Your task to perform on an android device: Play the last video I watched on Youtube Image 0: 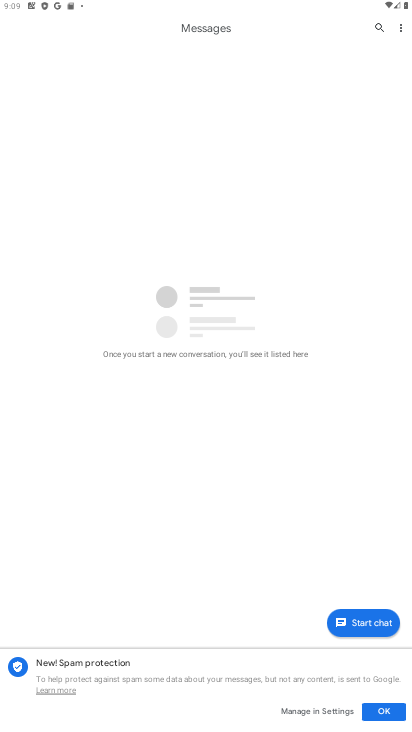
Step 0: press home button
Your task to perform on an android device: Play the last video I watched on Youtube Image 1: 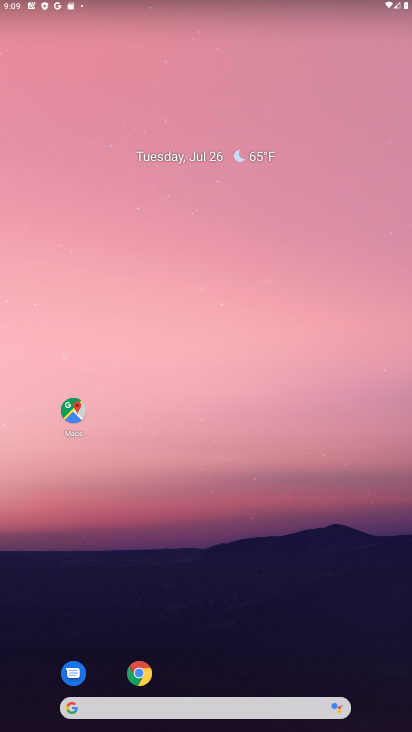
Step 1: drag from (372, 686) to (328, 261)
Your task to perform on an android device: Play the last video I watched on Youtube Image 2: 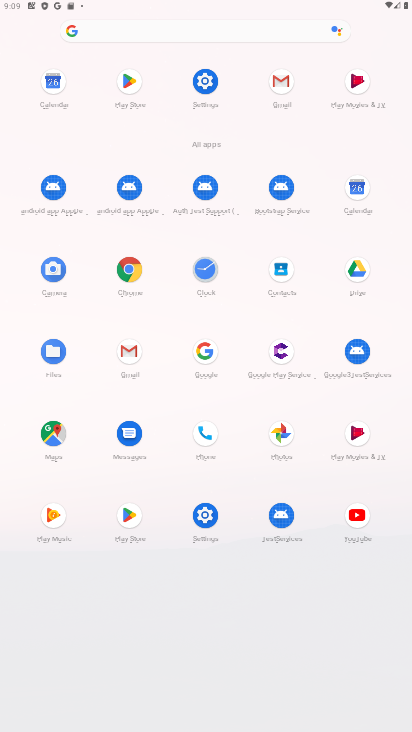
Step 2: click (357, 513)
Your task to perform on an android device: Play the last video I watched on Youtube Image 3: 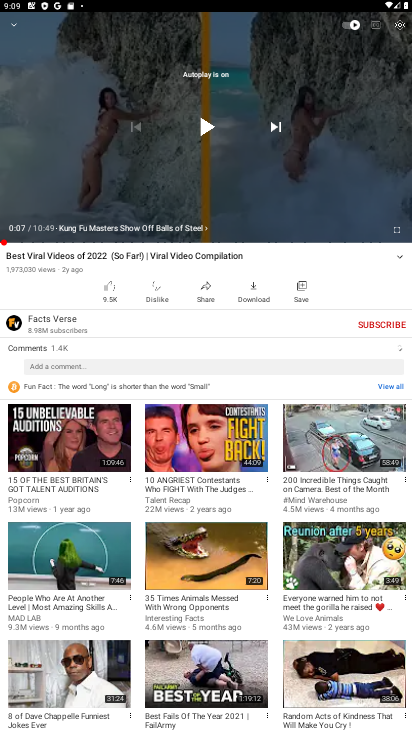
Step 3: press back button
Your task to perform on an android device: Play the last video I watched on Youtube Image 4: 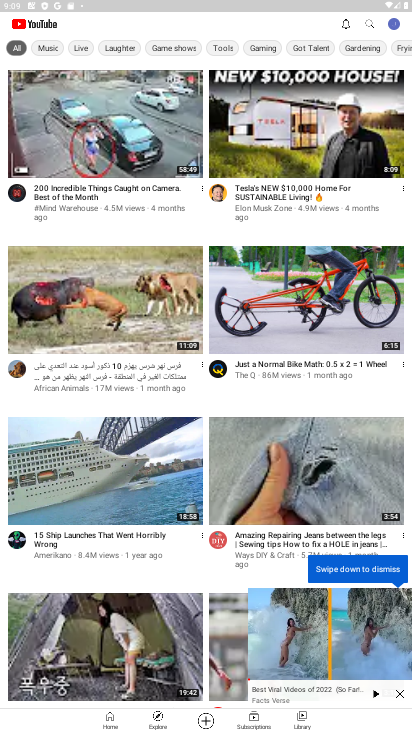
Step 4: click (302, 720)
Your task to perform on an android device: Play the last video I watched on Youtube Image 5: 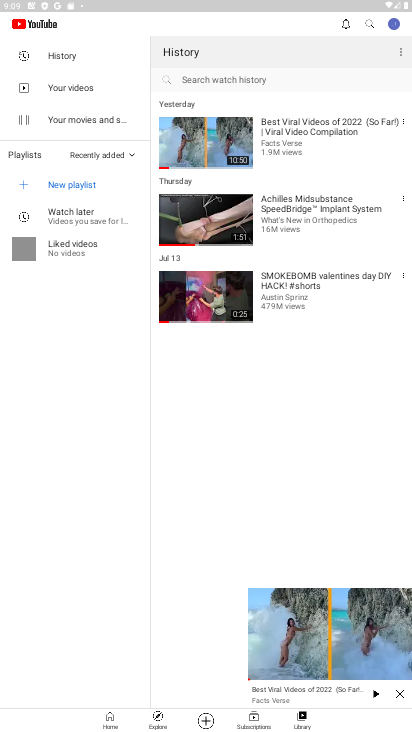
Step 5: click (209, 132)
Your task to perform on an android device: Play the last video I watched on Youtube Image 6: 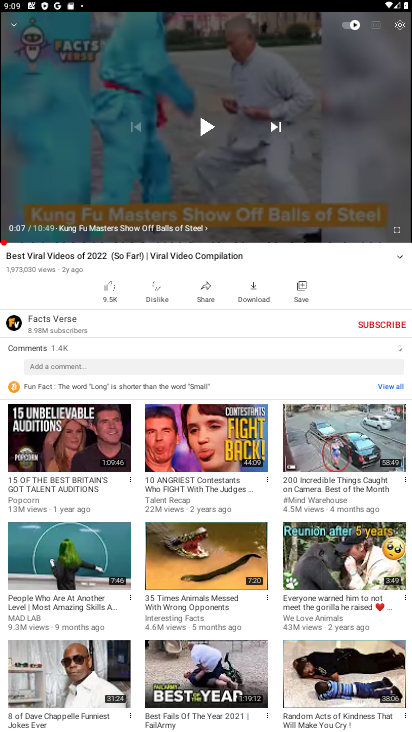
Step 6: click (204, 125)
Your task to perform on an android device: Play the last video I watched on Youtube Image 7: 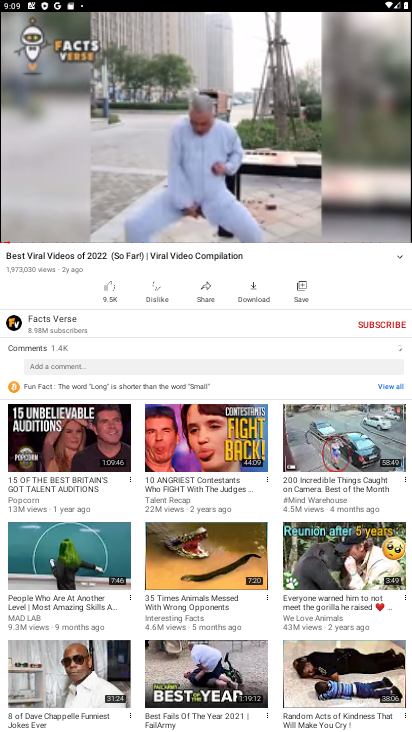
Step 7: click (198, 123)
Your task to perform on an android device: Play the last video I watched on Youtube Image 8: 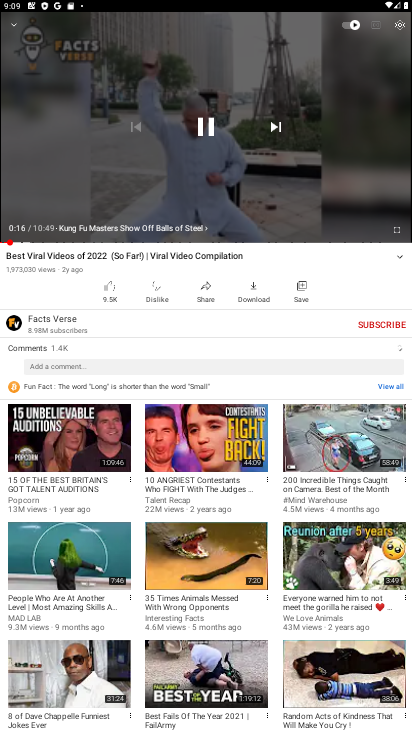
Step 8: click (198, 123)
Your task to perform on an android device: Play the last video I watched on Youtube Image 9: 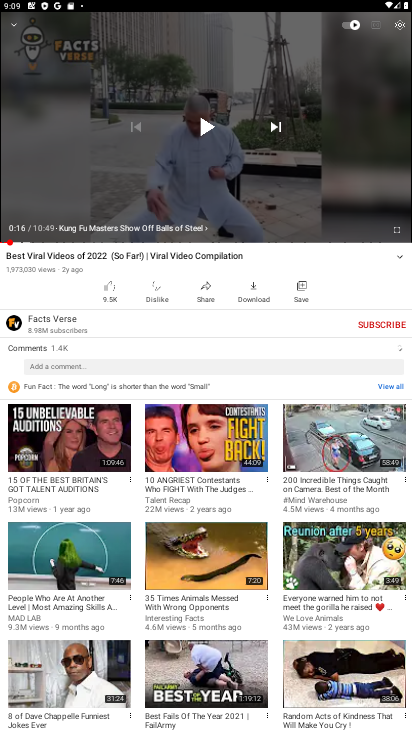
Step 9: task complete